Your task to perform on an android device: turn off smart reply in the gmail app Image 0: 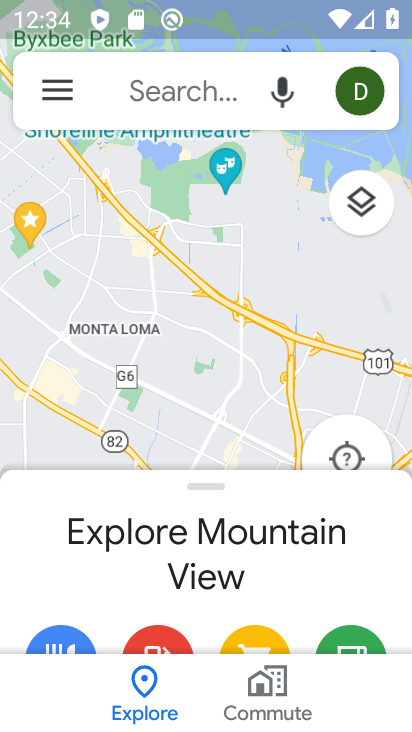
Step 0: press home button
Your task to perform on an android device: turn off smart reply in the gmail app Image 1: 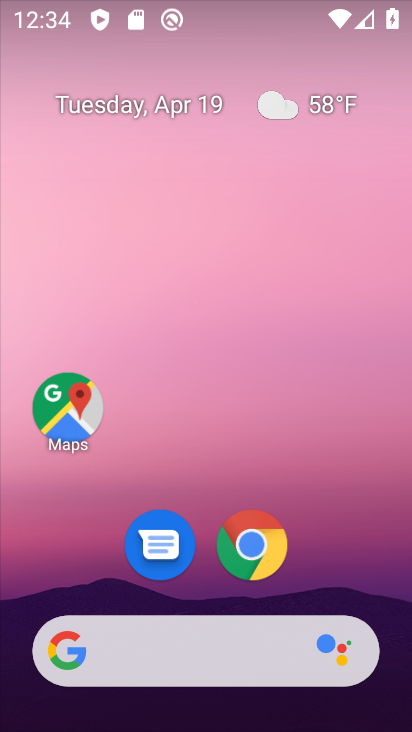
Step 1: drag from (210, 461) to (272, 14)
Your task to perform on an android device: turn off smart reply in the gmail app Image 2: 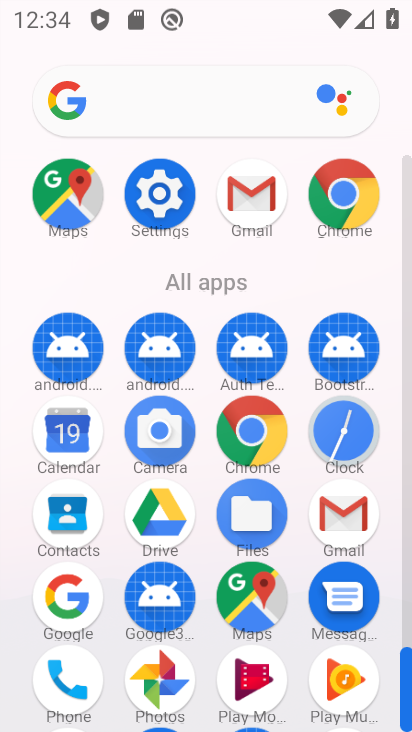
Step 2: click (244, 198)
Your task to perform on an android device: turn off smart reply in the gmail app Image 3: 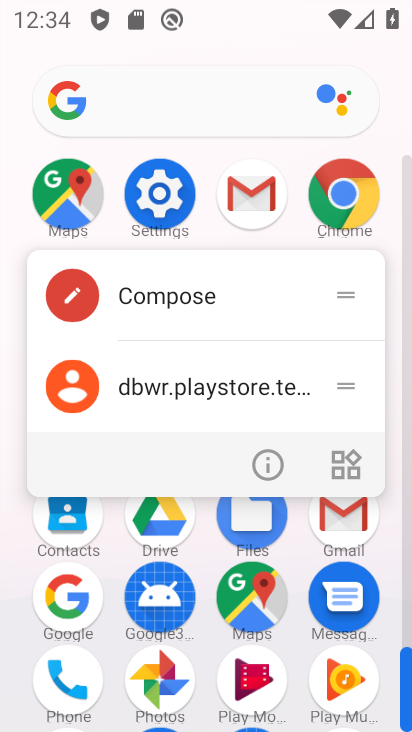
Step 3: click (249, 191)
Your task to perform on an android device: turn off smart reply in the gmail app Image 4: 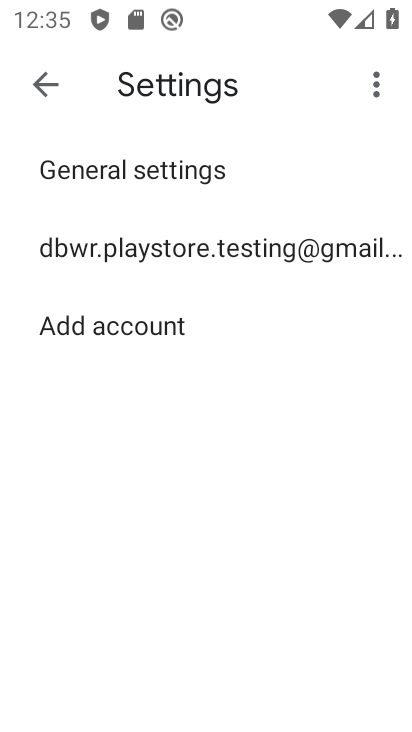
Step 4: click (185, 237)
Your task to perform on an android device: turn off smart reply in the gmail app Image 5: 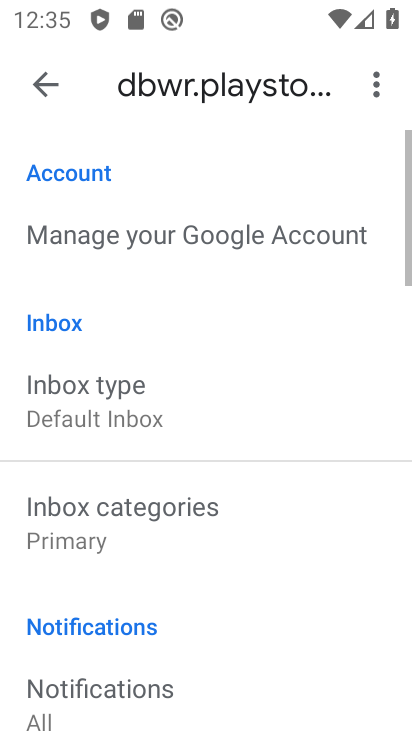
Step 5: drag from (186, 579) to (275, 36)
Your task to perform on an android device: turn off smart reply in the gmail app Image 6: 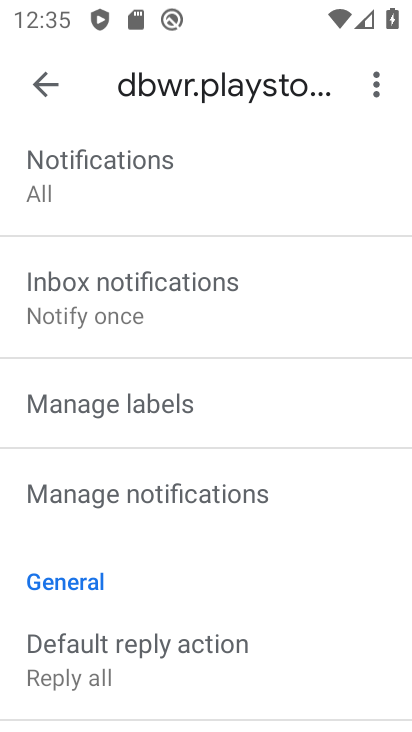
Step 6: drag from (172, 585) to (316, 17)
Your task to perform on an android device: turn off smart reply in the gmail app Image 7: 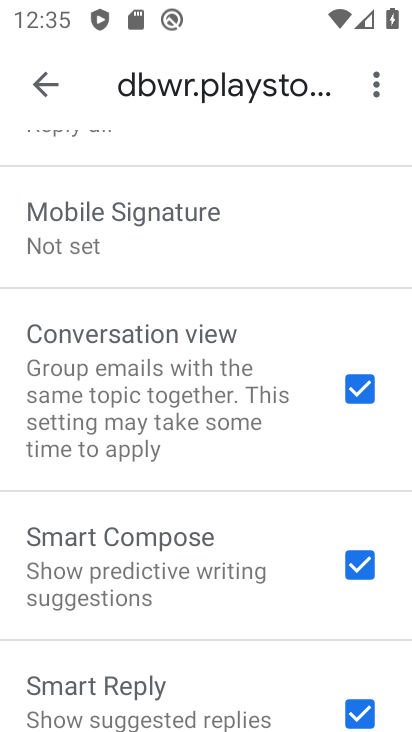
Step 7: drag from (221, 583) to (256, 344)
Your task to perform on an android device: turn off smart reply in the gmail app Image 8: 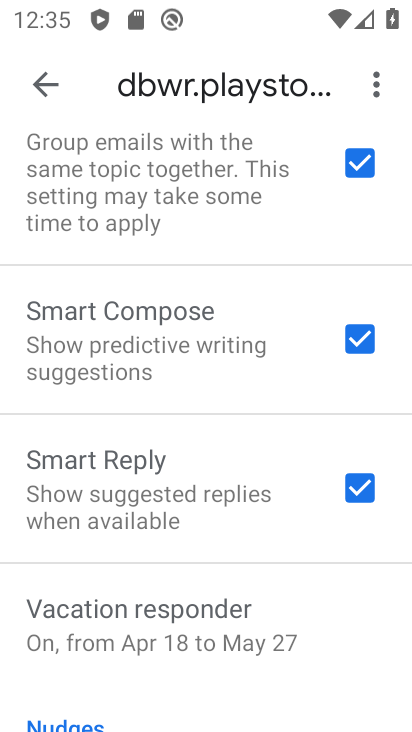
Step 8: click (364, 492)
Your task to perform on an android device: turn off smart reply in the gmail app Image 9: 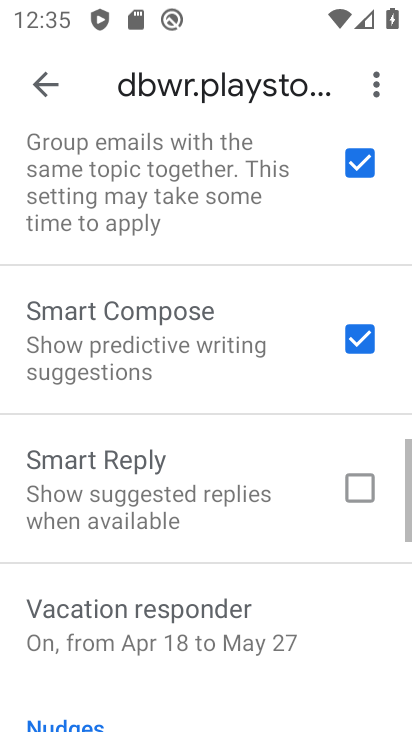
Step 9: task complete